Your task to perform on an android device: change the clock style Image 0: 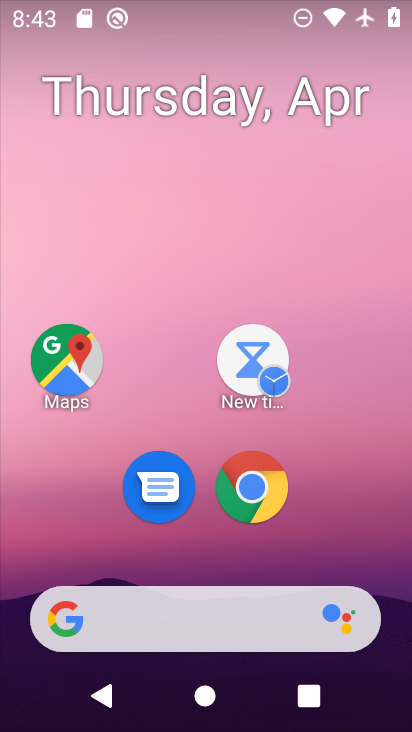
Step 0: press home button
Your task to perform on an android device: change the clock style Image 1: 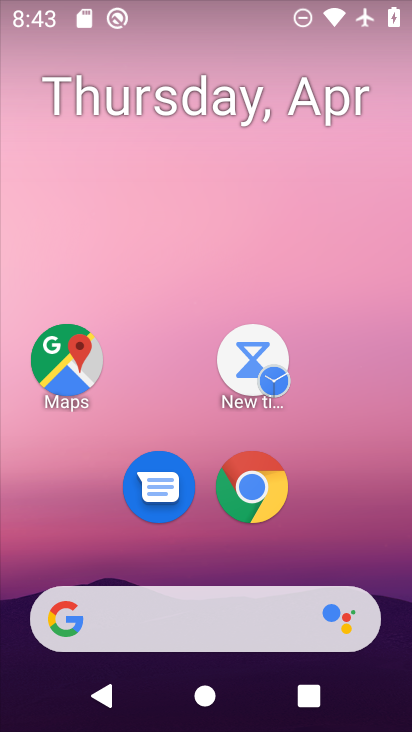
Step 1: drag from (318, 507) to (273, 70)
Your task to perform on an android device: change the clock style Image 2: 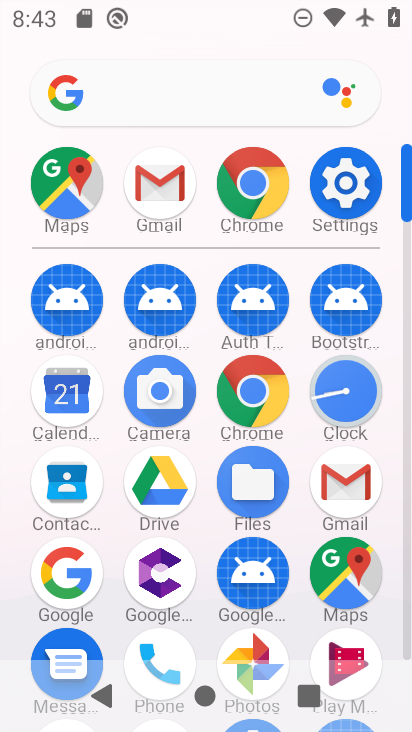
Step 2: click (341, 391)
Your task to perform on an android device: change the clock style Image 3: 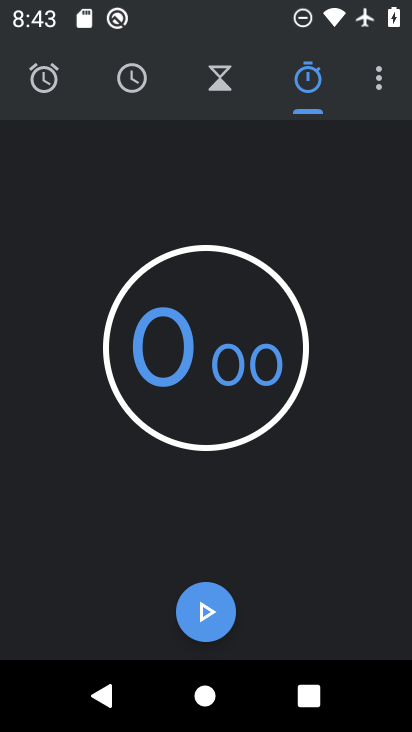
Step 3: click (374, 81)
Your task to perform on an android device: change the clock style Image 4: 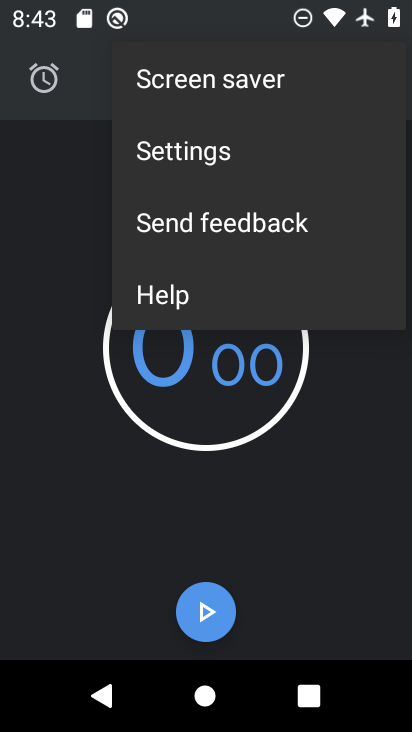
Step 4: click (180, 152)
Your task to perform on an android device: change the clock style Image 5: 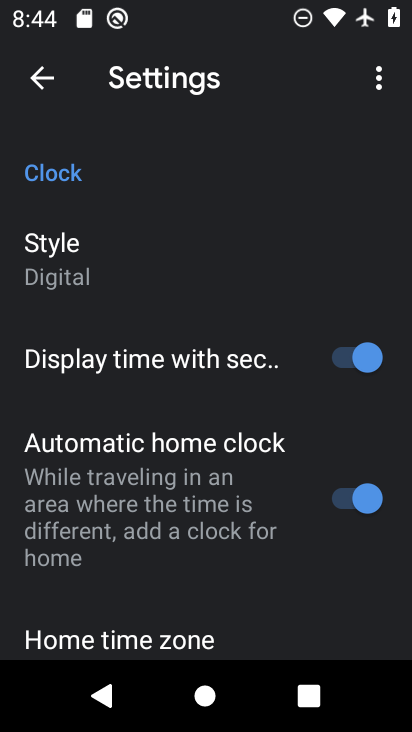
Step 5: click (60, 267)
Your task to perform on an android device: change the clock style Image 6: 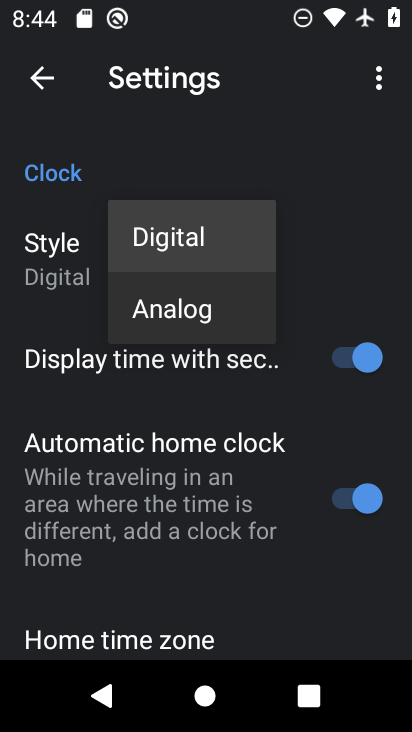
Step 6: click (195, 309)
Your task to perform on an android device: change the clock style Image 7: 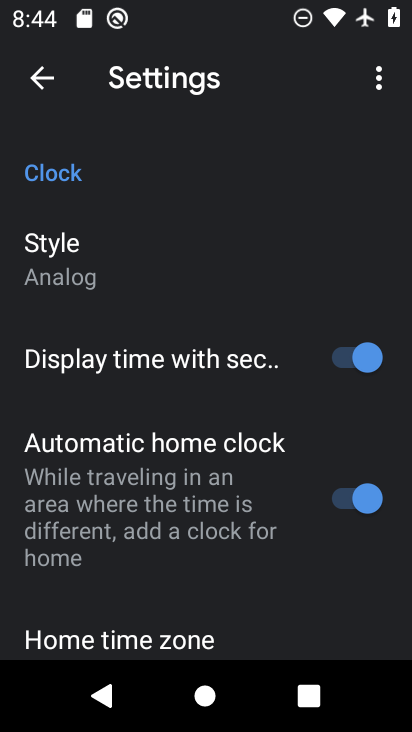
Step 7: task complete